Your task to perform on an android device: Open Google Chrome Image 0: 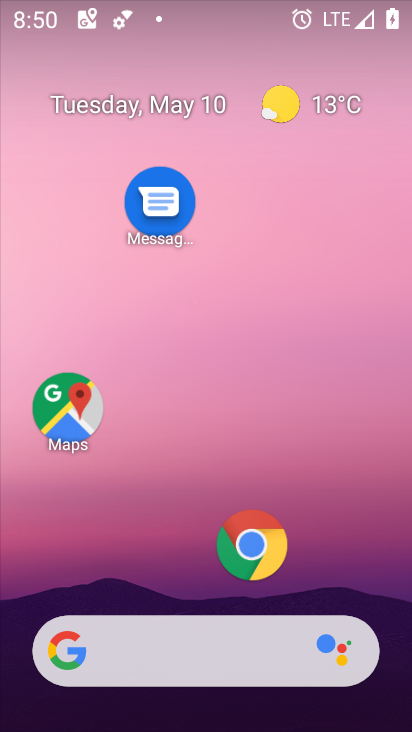
Step 0: click (243, 540)
Your task to perform on an android device: Open Google Chrome Image 1: 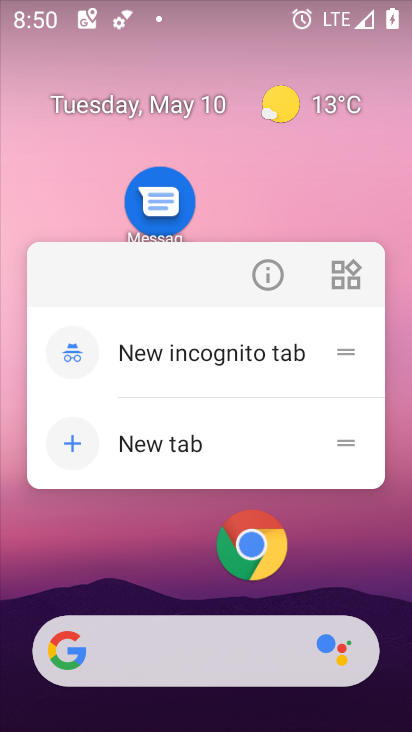
Step 1: click (244, 539)
Your task to perform on an android device: Open Google Chrome Image 2: 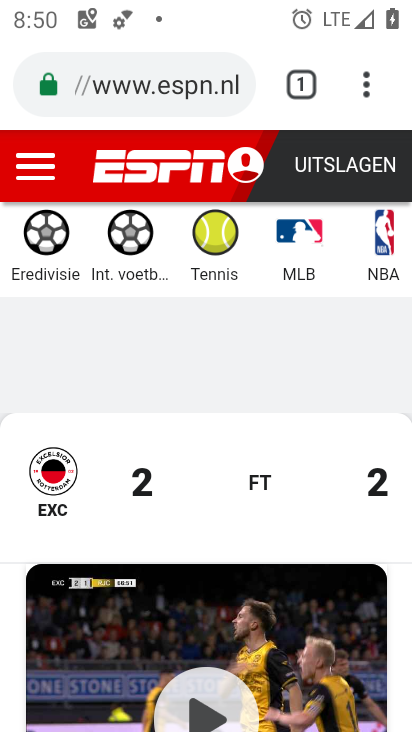
Step 2: task complete